Your task to perform on an android device: Empty the shopping cart on target.com. Add rayovac triple a to the cart on target.com, then select checkout. Image 0: 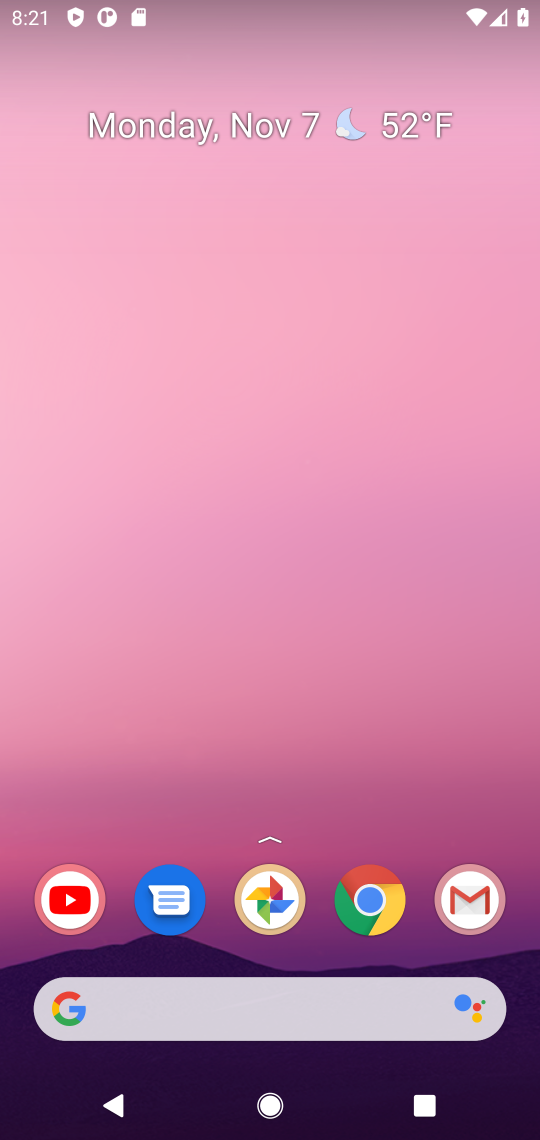
Step 0: click (287, 1008)
Your task to perform on an android device: Empty the shopping cart on target.com. Add rayovac triple a to the cart on target.com, then select checkout. Image 1: 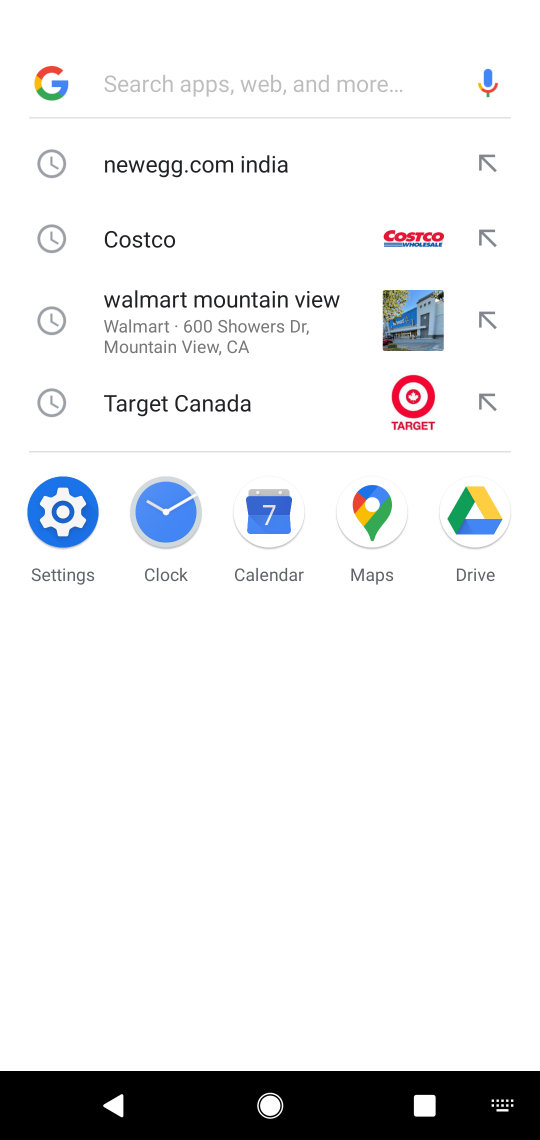
Step 1: type "target"
Your task to perform on an android device: Empty the shopping cart on target.com. Add rayovac triple a to the cart on target.com, then select checkout. Image 2: 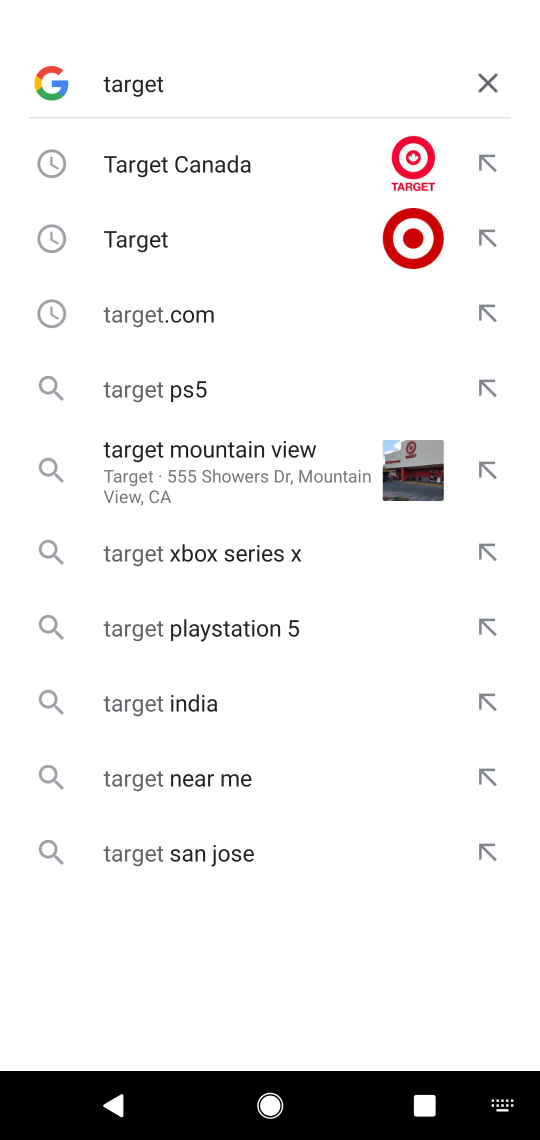
Step 2: click (186, 154)
Your task to perform on an android device: Empty the shopping cart on target.com. Add rayovac triple a to the cart on target.com, then select checkout. Image 3: 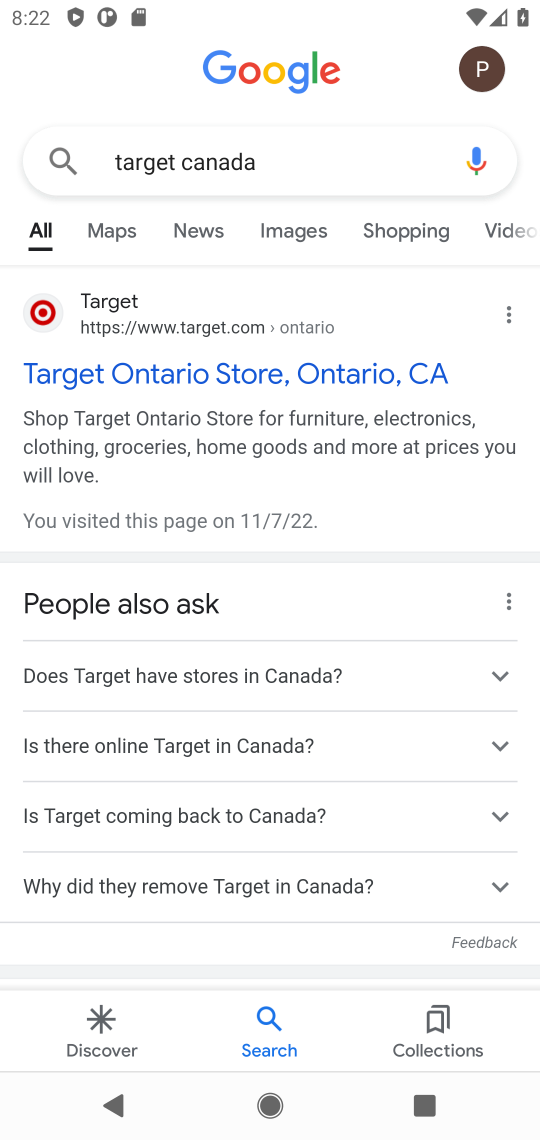
Step 3: click (129, 376)
Your task to perform on an android device: Empty the shopping cart on target.com. Add rayovac triple a to the cart on target.com, then select checkout. Image 4: 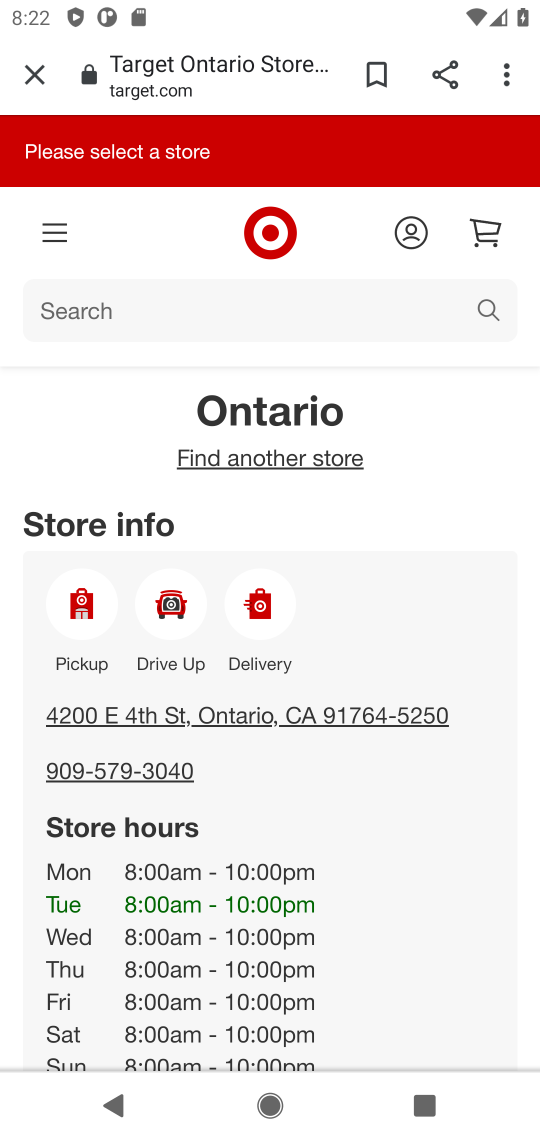
Step 4: task complete